Your task to perform on an android device: install app "Google Calendar" Image 0: 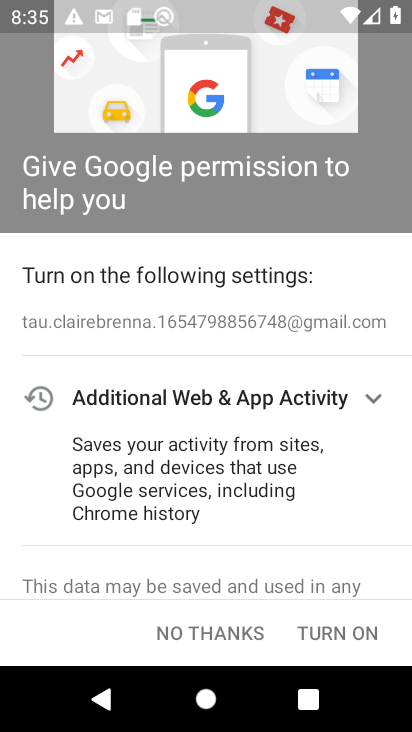
Step 0: press home button
Your task to perform on an android device: install app "Google Calendar" Image 1: 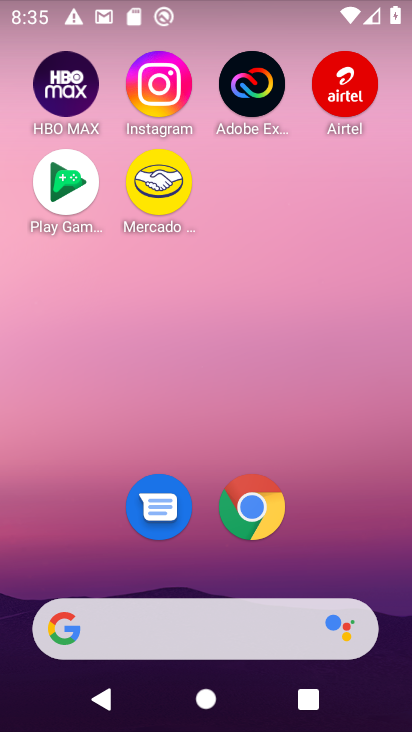
Step 1: click (206, 549)
Your task to perform on an android device: install app "Google Calendar" Image 2: 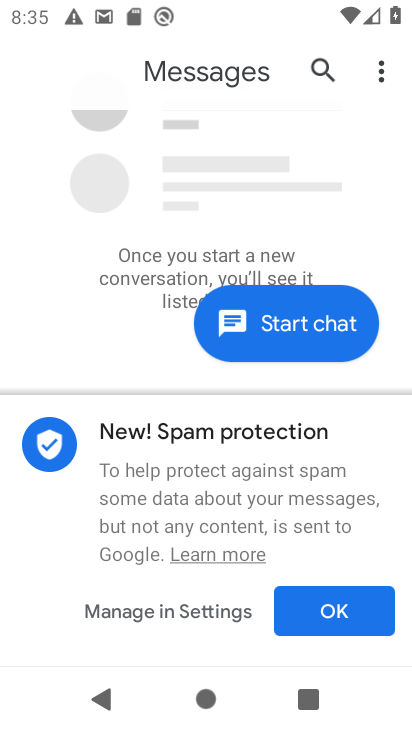
Step 2: press home button
Your task to perform on an android device: install app "Google Calendar" Image 3: 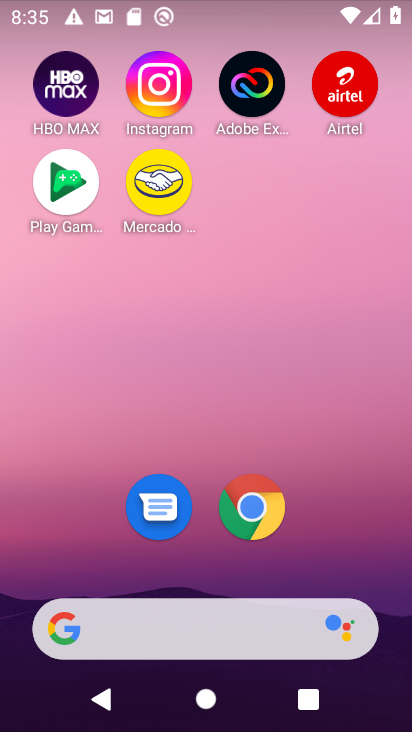
Step 3: drag from (197, 563) to (197, 67)
Your task to perform on an android device: install app "Google Calendar" Image 4: 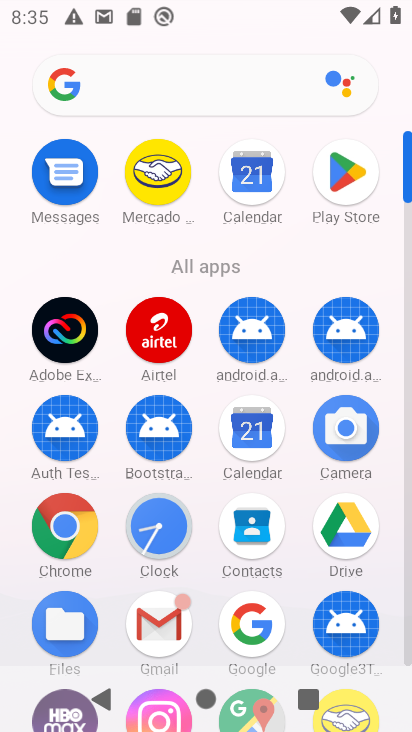
Step 4: click (261, 442)
Your task to perform on an android device: install app "Google Calendar" Image 5: 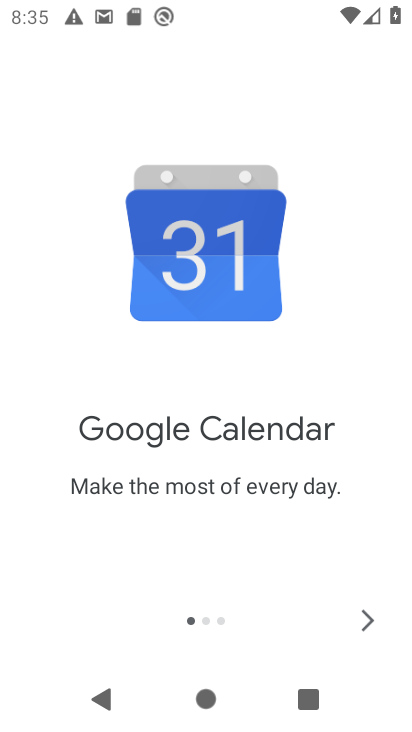
Step 5: click (368, 625)
Your task to perform on an android device: install app "Google Calendar" Image 6: 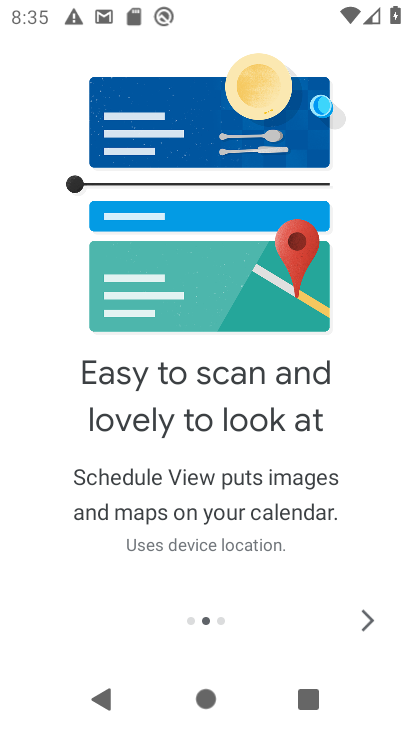
Step 6: click (368, 625)
Your task to perform on an android device: install app "Google Calendar" Image 7: 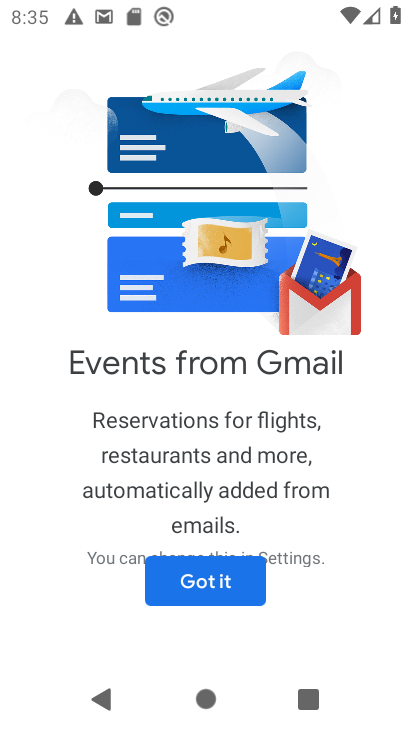
Step 7: click (220, 583)
Your task to perform on an android device: install app "Google Calendar" Image 8: 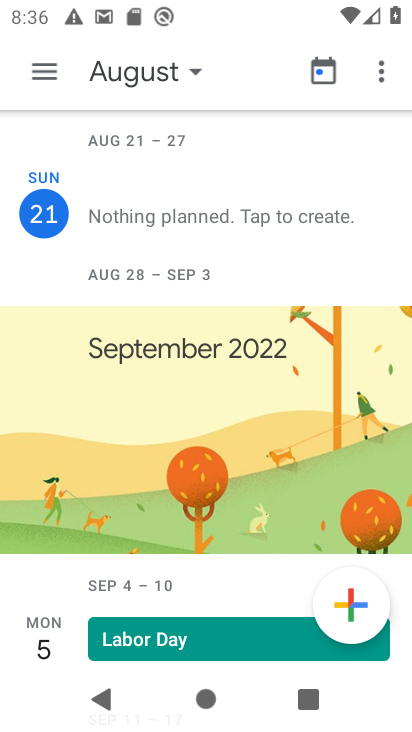
Step 8: task complete